Your task to perform on an android device: turn on the 12-hour format for clock Image 0: 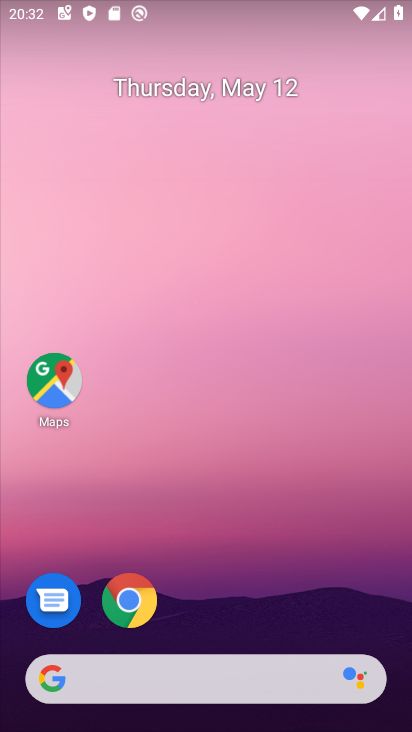
Step 0: drag from (212, 625) to (222, 227)
Your task to perform on an android device: turn on the 12-hour format for clock Image 1: 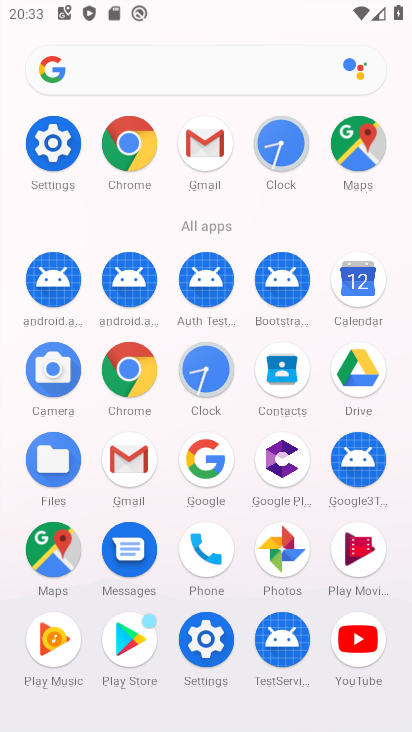
Step 1: click (218, 381)
Your task to perform on an android device: turn on the 12-hour format for clock Image 2: 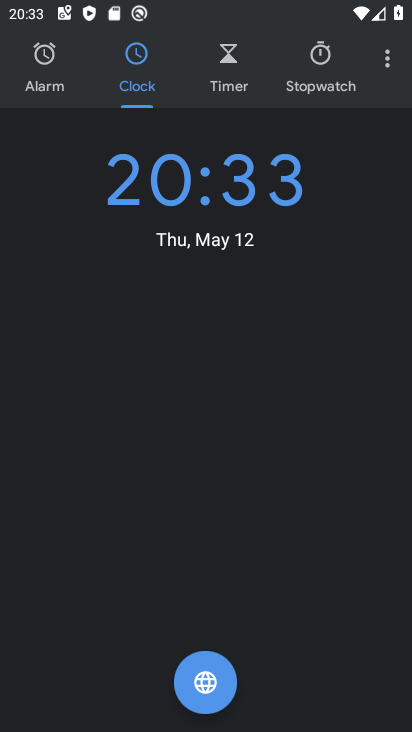
Step 2: click (386, 66)
Your task to perform on an android device: turn on the 12-hour format for clock Image 3: 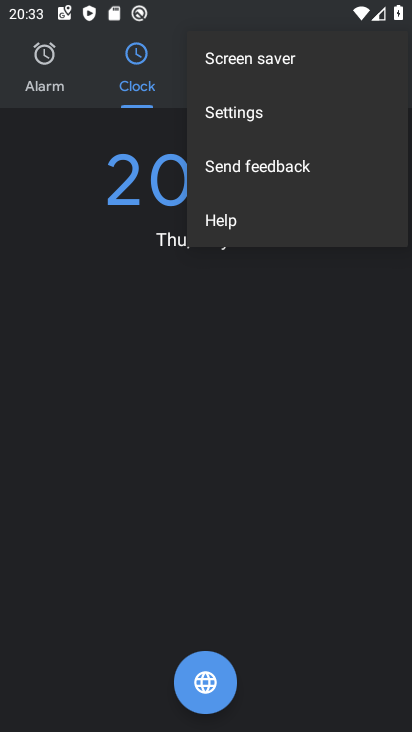
Step 3: click (283, 110)
Your task to perform on an android device: turn on the 12-hour format for clock Image 4: 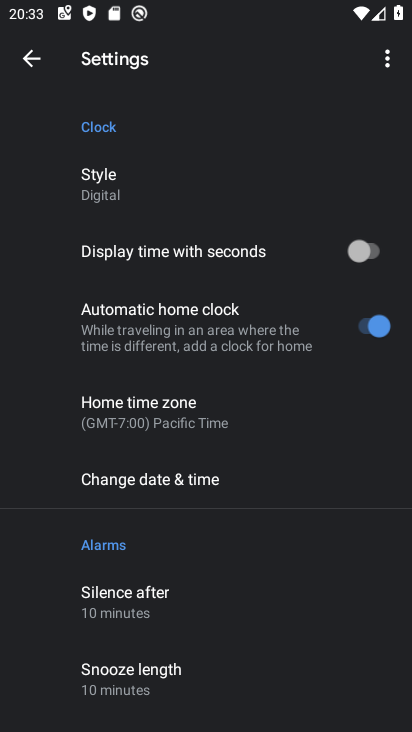
Step 4: click (175, 485)
Your task to perform on an android device: turn on the 12-hour format for clock Image 5: 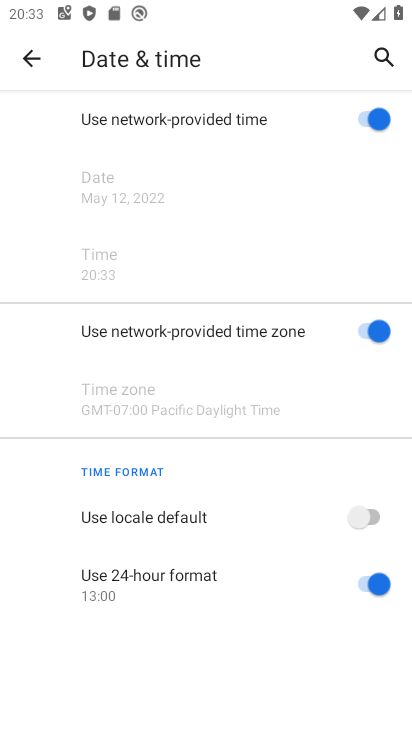
Step 5: click (363, 594)
Your task to perform on an android device: turn on the 12-hour format for clock Image 6: 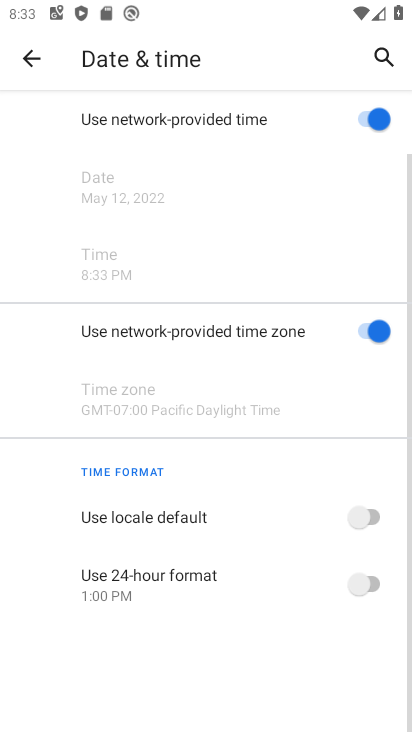
Step 6: click (375, 512)
Your task to perform on an android device: turn on the 12-hour format for clock Image 7: 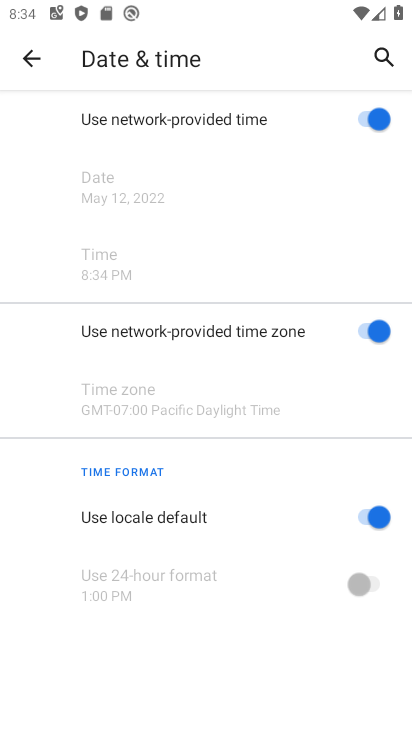
Step 7: task complete